Your task to perform on an android device: make emails show in primary in the gmail app Image 0: 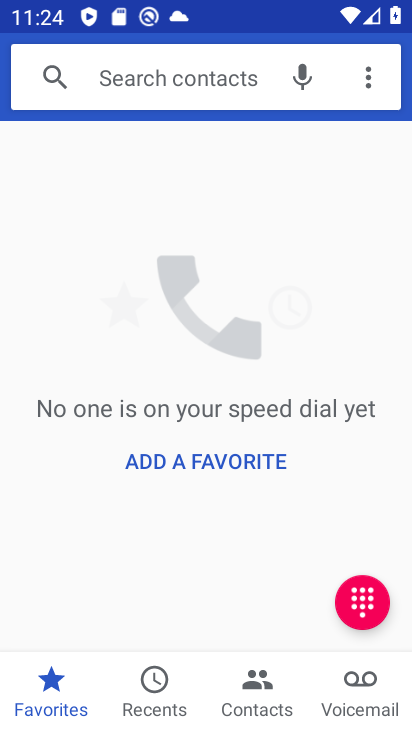
Step 0: press home button
Your task to perform on an android device: make emails show in primary in the gmail app Image 1: 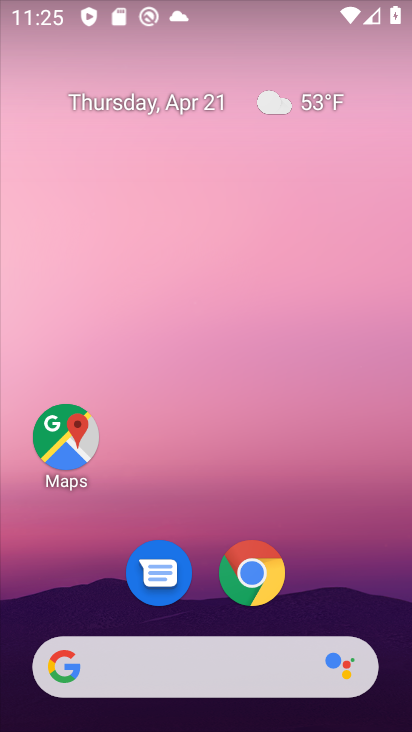
Step 1: drag from (165, 668) to (288, 250)
Your task to perform on an android device: make emails show in primary in the gmail app Image 2: 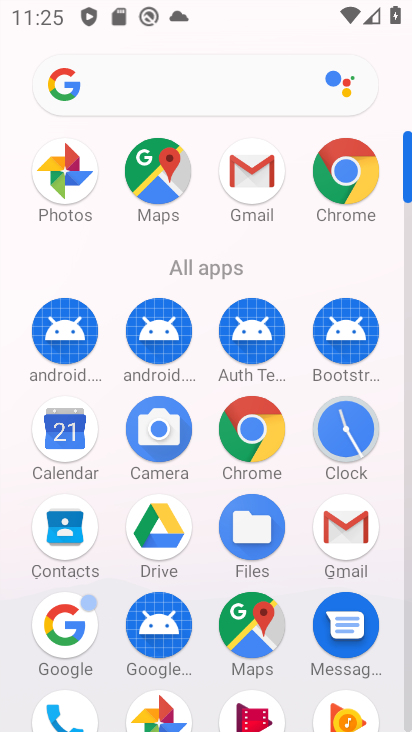
Step 2: click (251, 178)
Your task to perform on an android device: make emails show in primary in the gmail app Image 3: 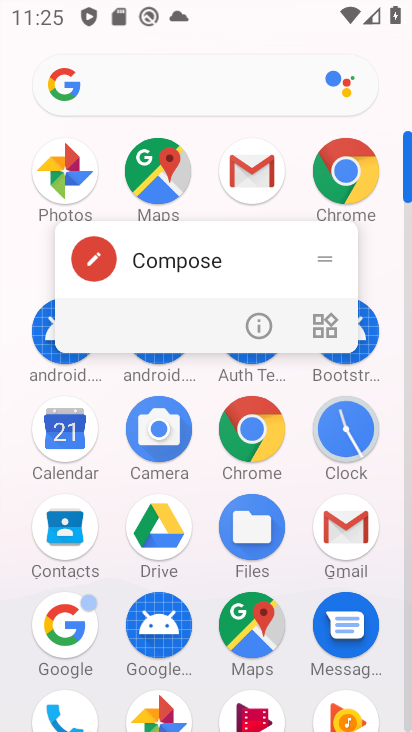
Step 3: click (256, 173)
Your task to perform on an android device: make emails show in primary in the gmail app Image 4: 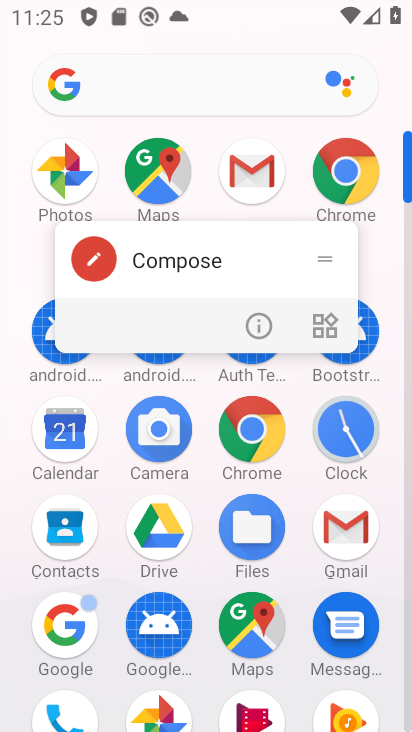
Step 4: click (253, 178)
Your task to perform on an android device: make emails show in primary in the gmail app Image 5: 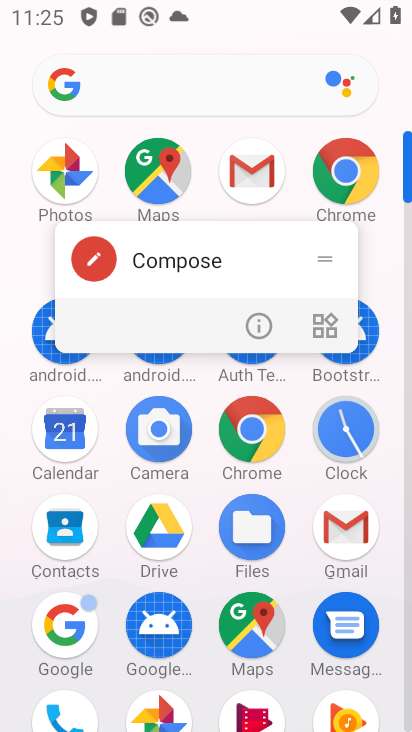
Step 5: click (250, 185)
Your task to perform on an android device: make emails show in primary in the gmail app Image 6: 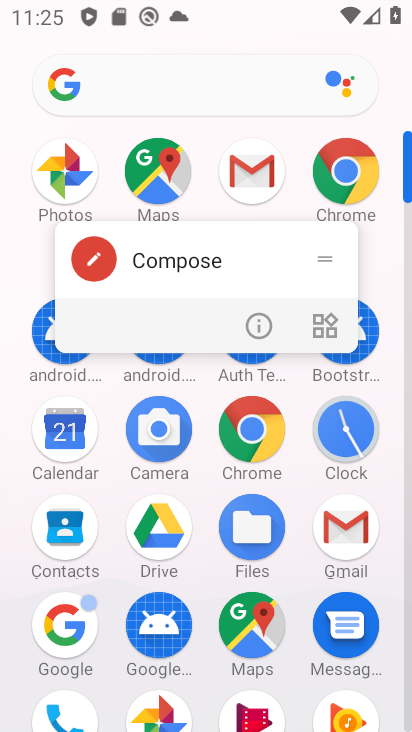
Step 6: click (250, 185)
Your task to perform on an android device: make emails show in primary in the gmail app Image 7: 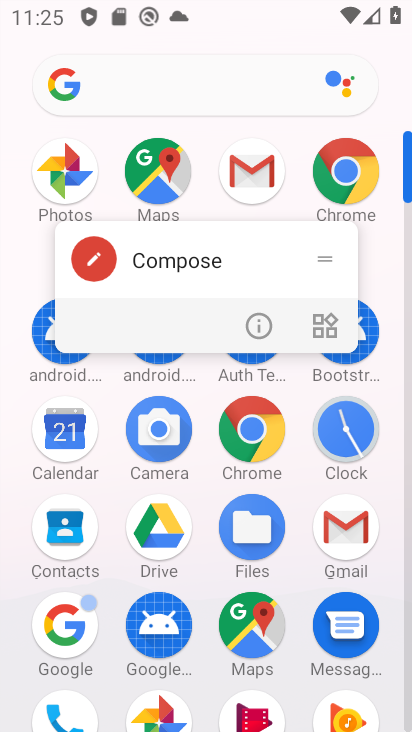
Step 7: click (258, 182)
Your task to perform on an android device: make emails show in primary in the gmail app Image 8: 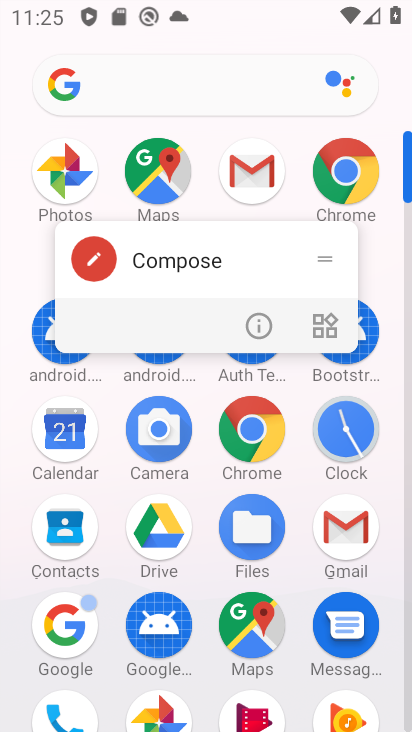
Step 8: click (249, 191)
Your task to perform on an android device: make emails show in primary in the gmail app Image 9: 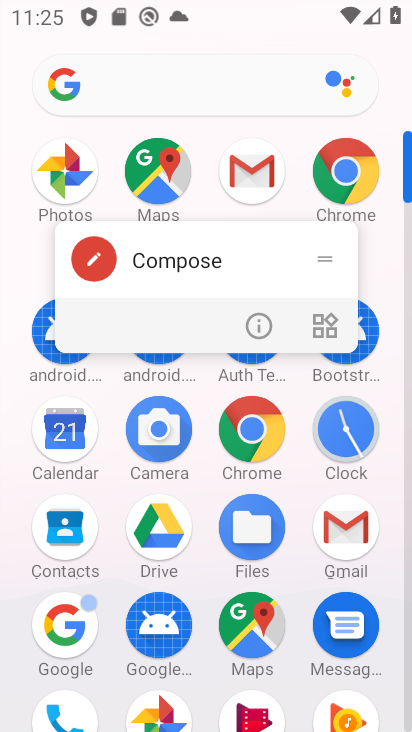
Step 9: click (251, 172)
Your task to perform on an android device: make emails show in primary in the gmail app Image 10: 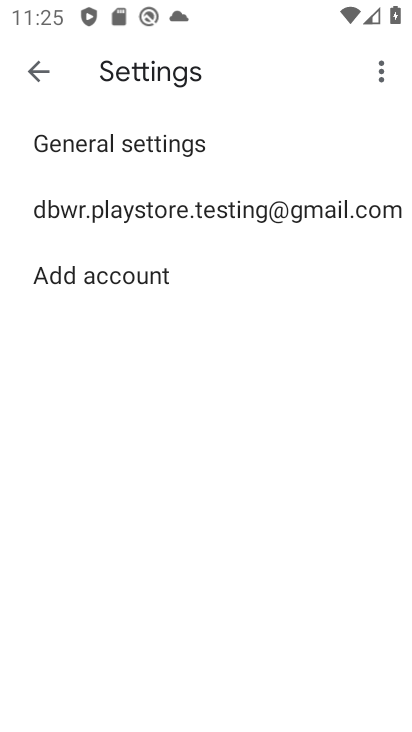
Step 10: click (221, 201)
Your task to perform on an android device: make emails show in primary in the gmail app Image 11: 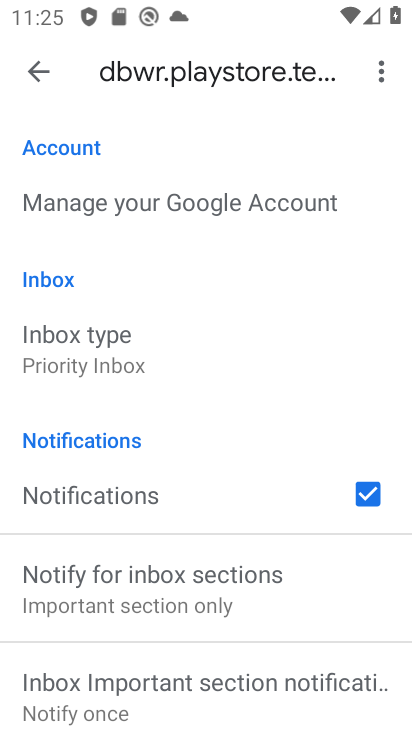
Step 11: task complete